Your task to perform on an android device: Show me popular games on the Play Store Image 0: 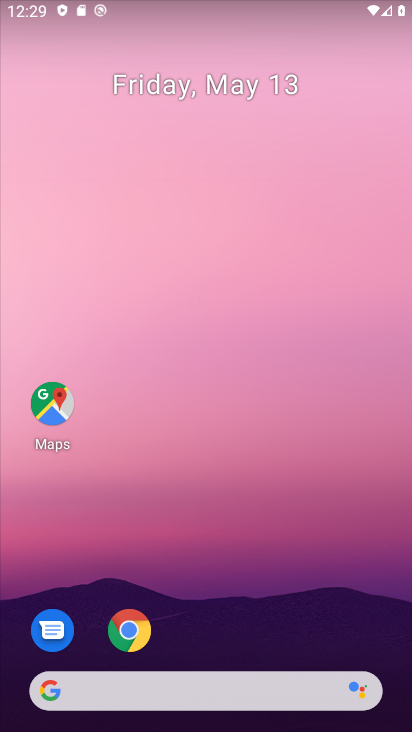
Step 0: drag from (286, 707) to (253, 311)
Your task to perform on an android device: Show me popular games on the Play Store Image 1: 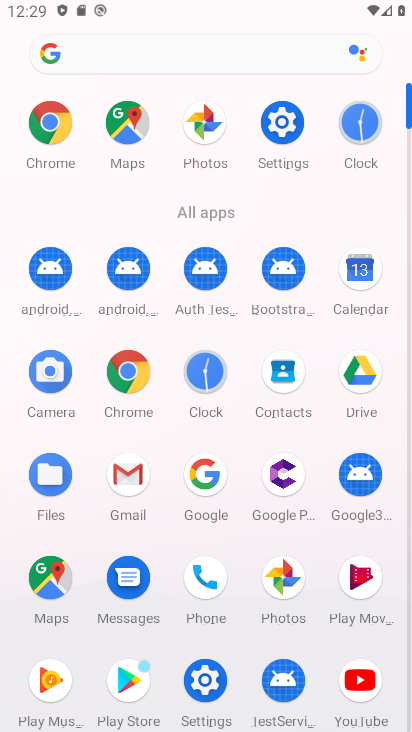
Step 1: click (144, 658)
Your task to perform on an android device: Show me popular games on the Play Store Image 2: 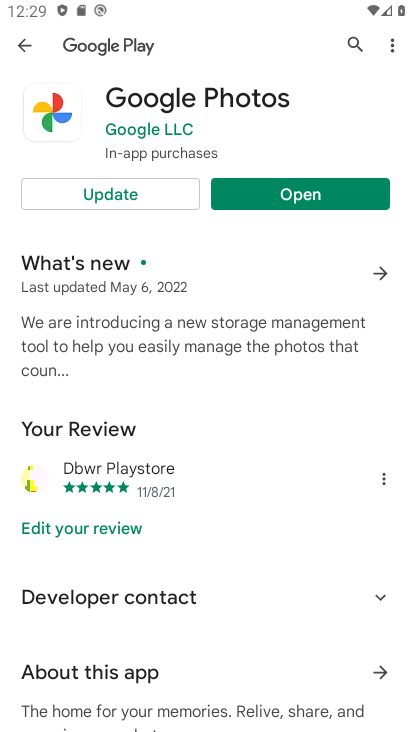
Step 2: click (351, 48)
Your task to perform on an android device: Show me popular games on the Play Store Image 3: 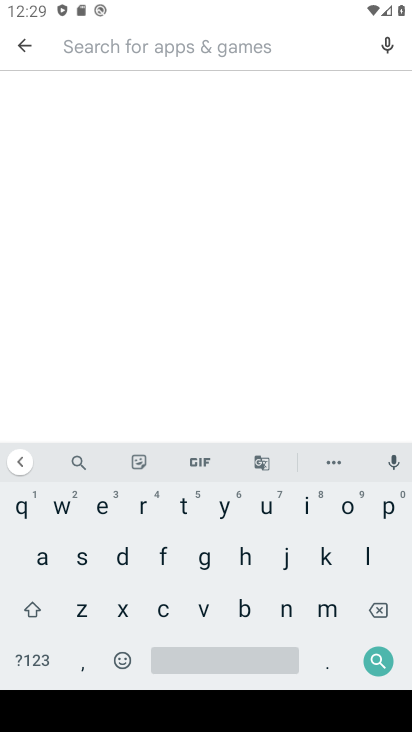
Step 3: click (379, 504)
Your task to perform on an android device: Show me popular games on the Play Store Image 4: 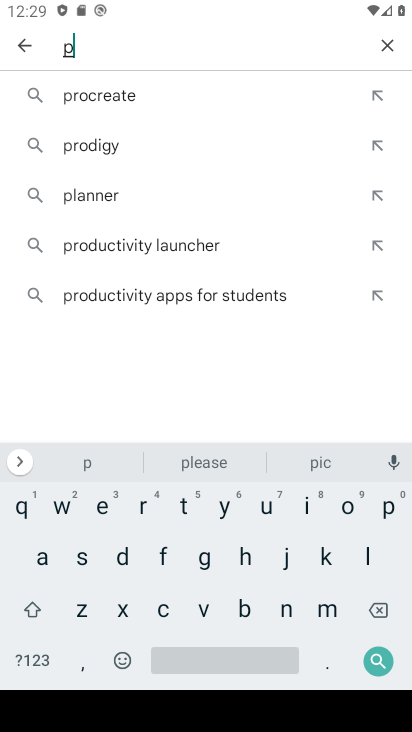
Step 4: click (338, 500)
Your task to perform on an android device: Show me popular games on the Play Store Image 5: 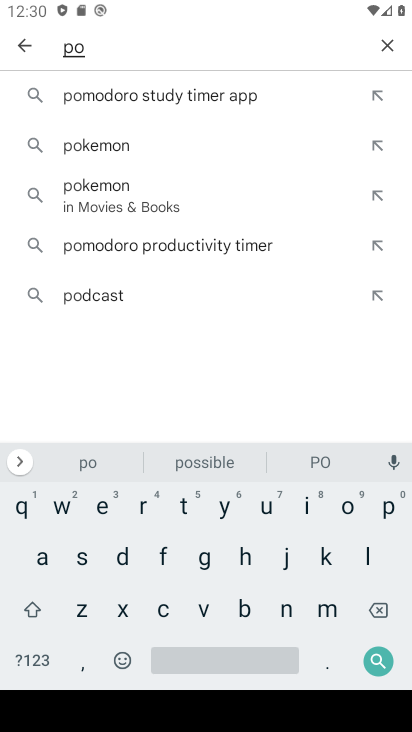
Step 5: click (385, 504)
Your task to perform on an android device: Show me popular games on the Play Store Image 6: 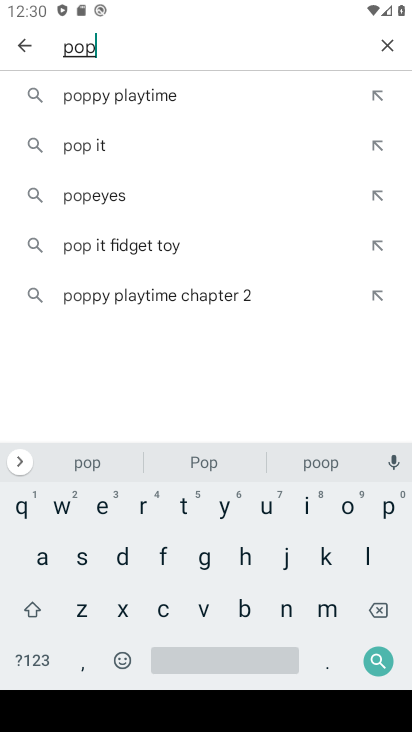
Step 6: click (262, 508)
Your task to perform on an android device: Show me popular games on the Play Store Image 7: 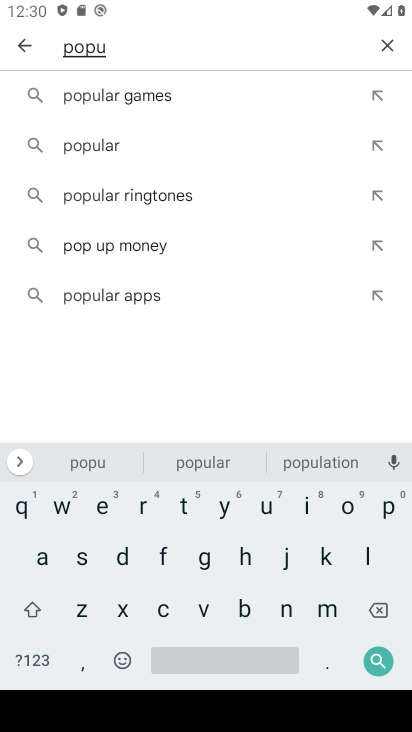
Step 7: click (139, 91)
Your task to perform on an android device: Show me popular games on the Play Store Image 8: 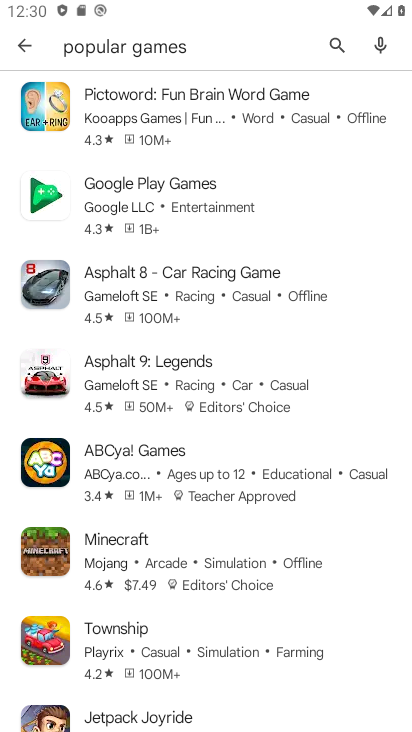
Step 8: task complete